Your task to perform on an android device: open app "Pinterest" (install if not already installed) and go to login screen Image 0: 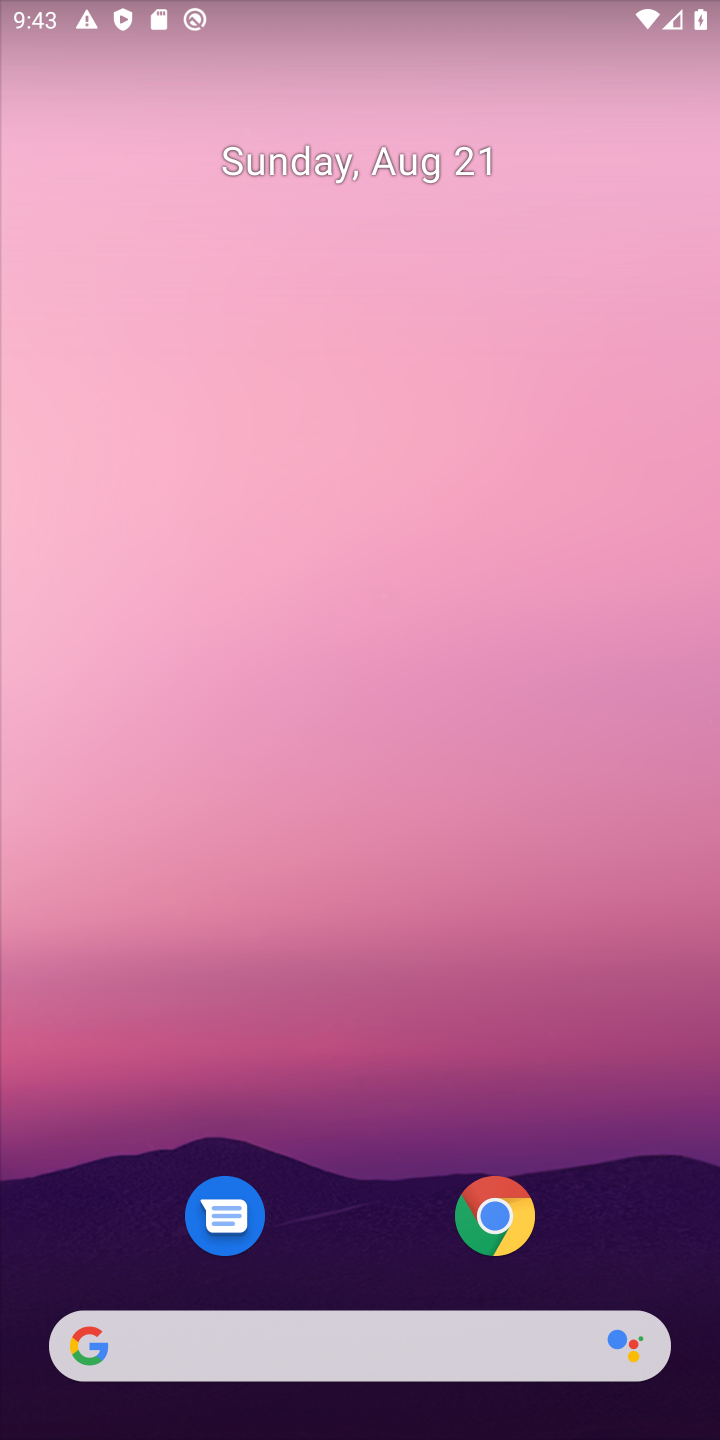
Step 0: drag from (418, 1308) to (457, 142)
Your task to perform on an android device: open app "Pinterest" (install if not already installed) and go to login screen Image 1: 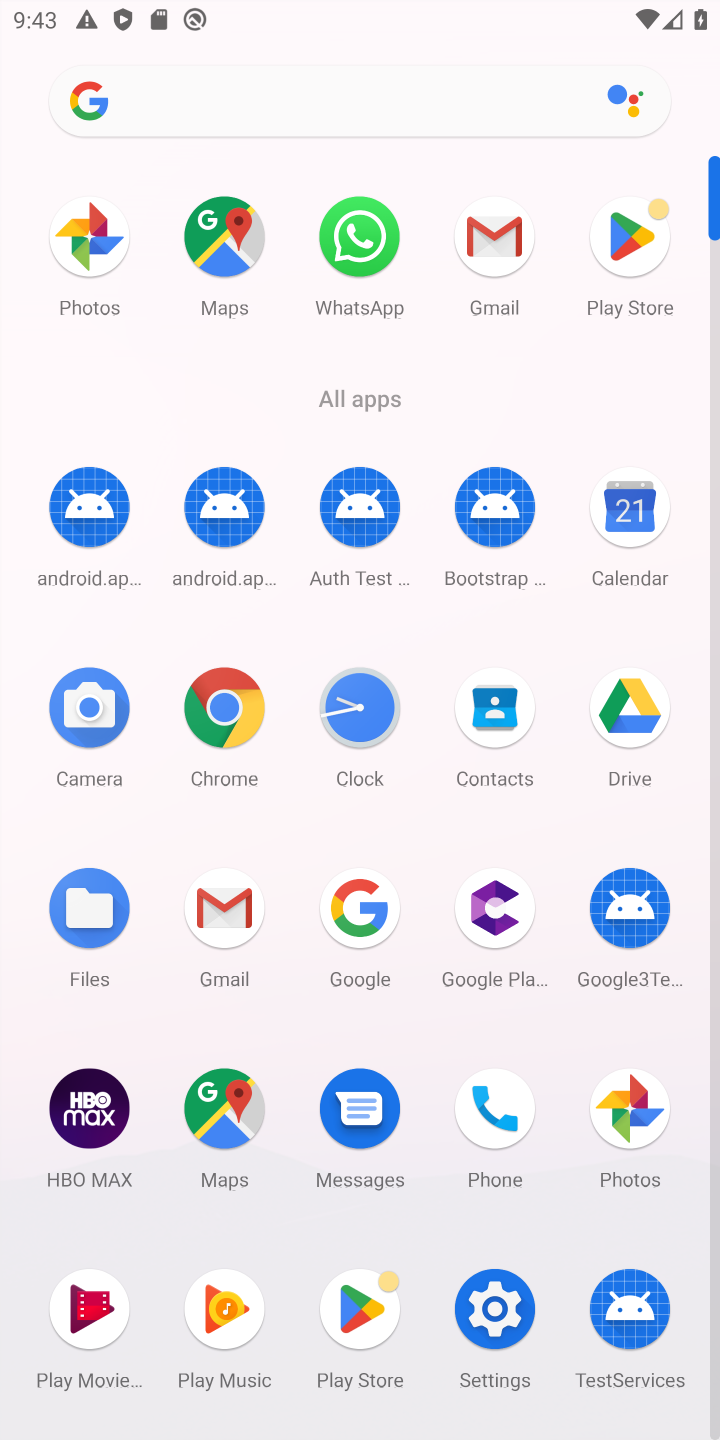
Step 1: click (629, 255)
Your task to perform on an android device: open app "Pinterest" (install if not already installed) and go to login screen Image 2: 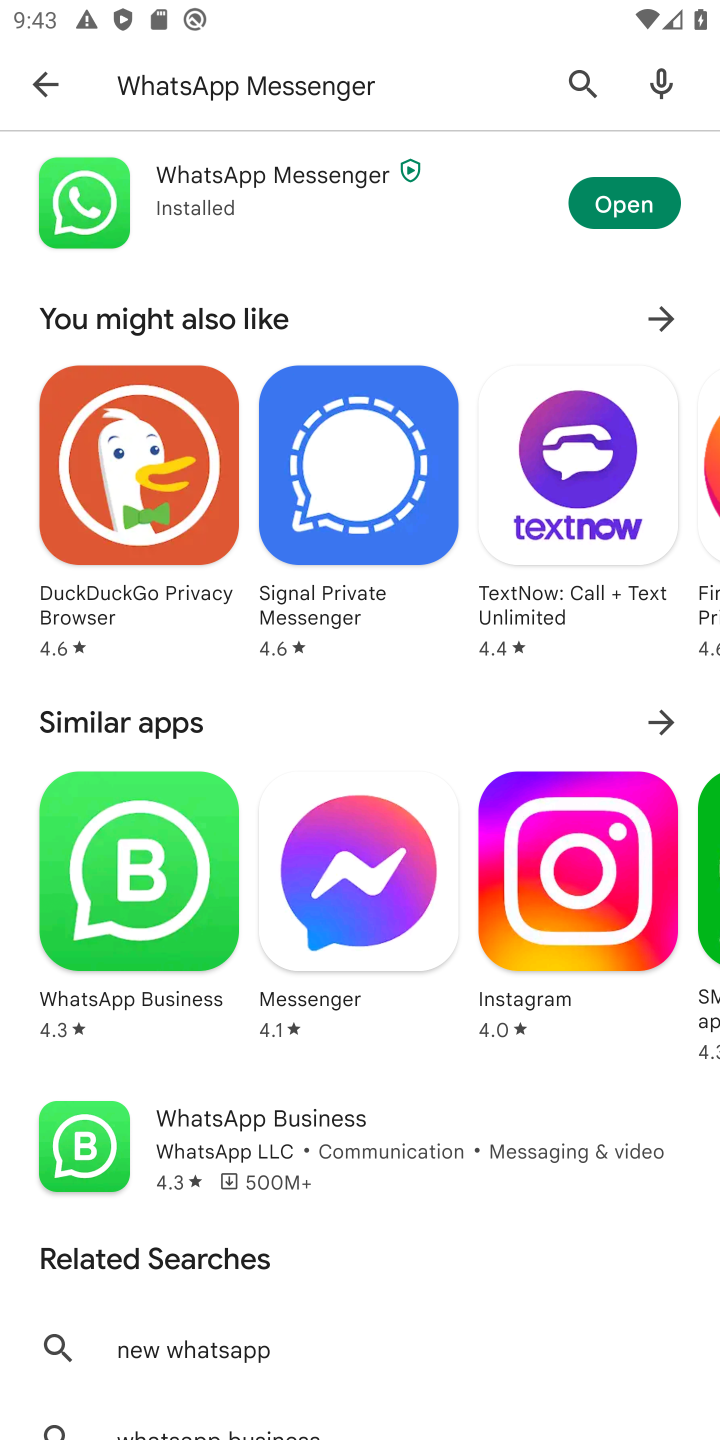
Step 2: press back button
Your task to perform on an android device: open app "Pinterest" (install if not already installed) and go to login screen Image 3: 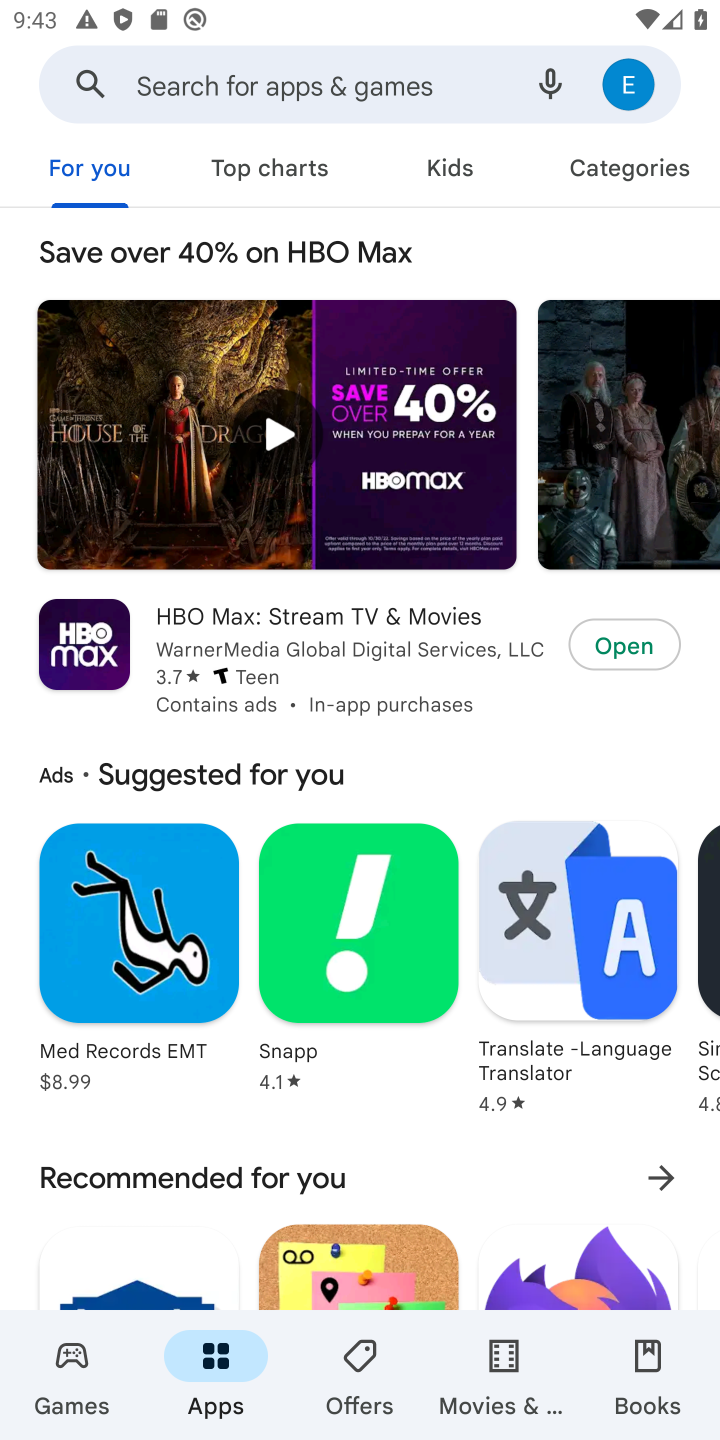
Step 3: click (405, 98)
Your task to perform on an android device: open app "Pinterest" (install if not already installed) and go to login screen Image 4: 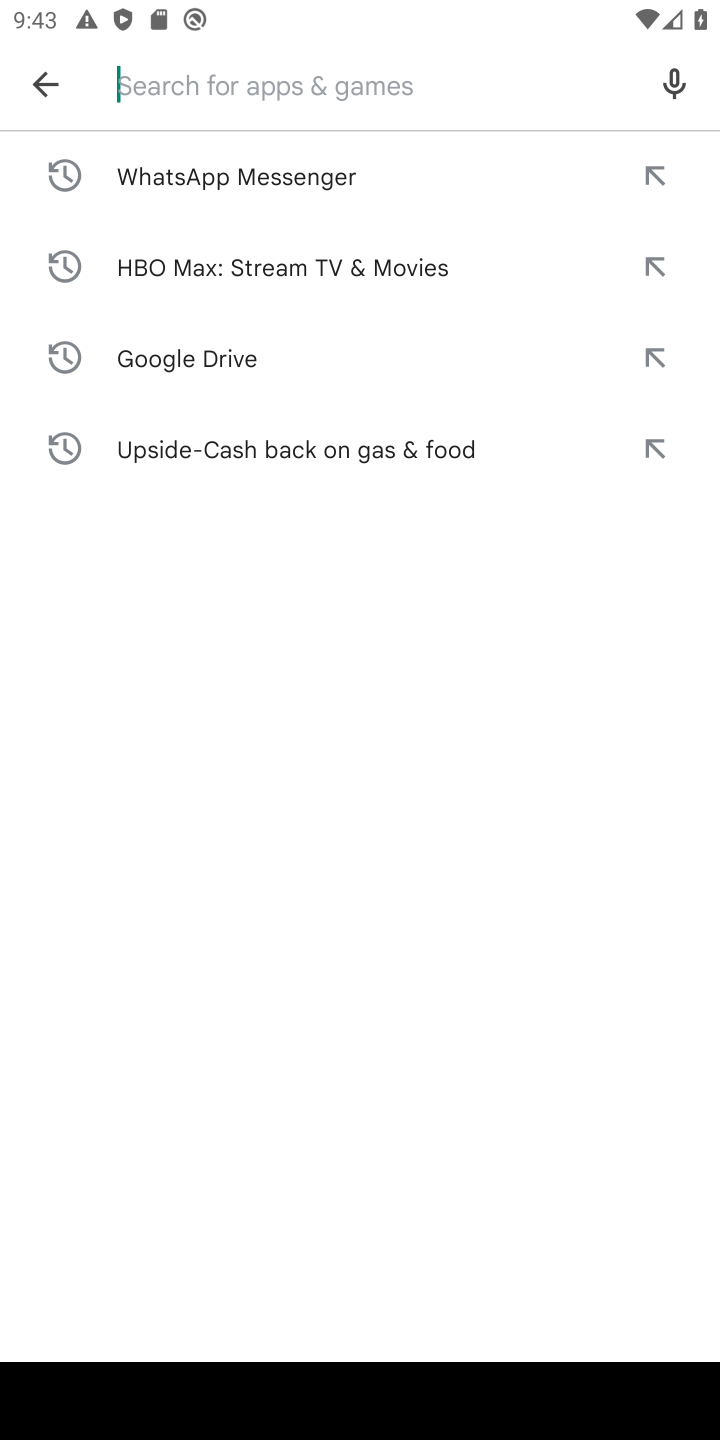
Step 4: type "Pinterest"
Your task to perform on an android device: open app "Pinterest" (install if not already installed) and go to login screen Image 5: 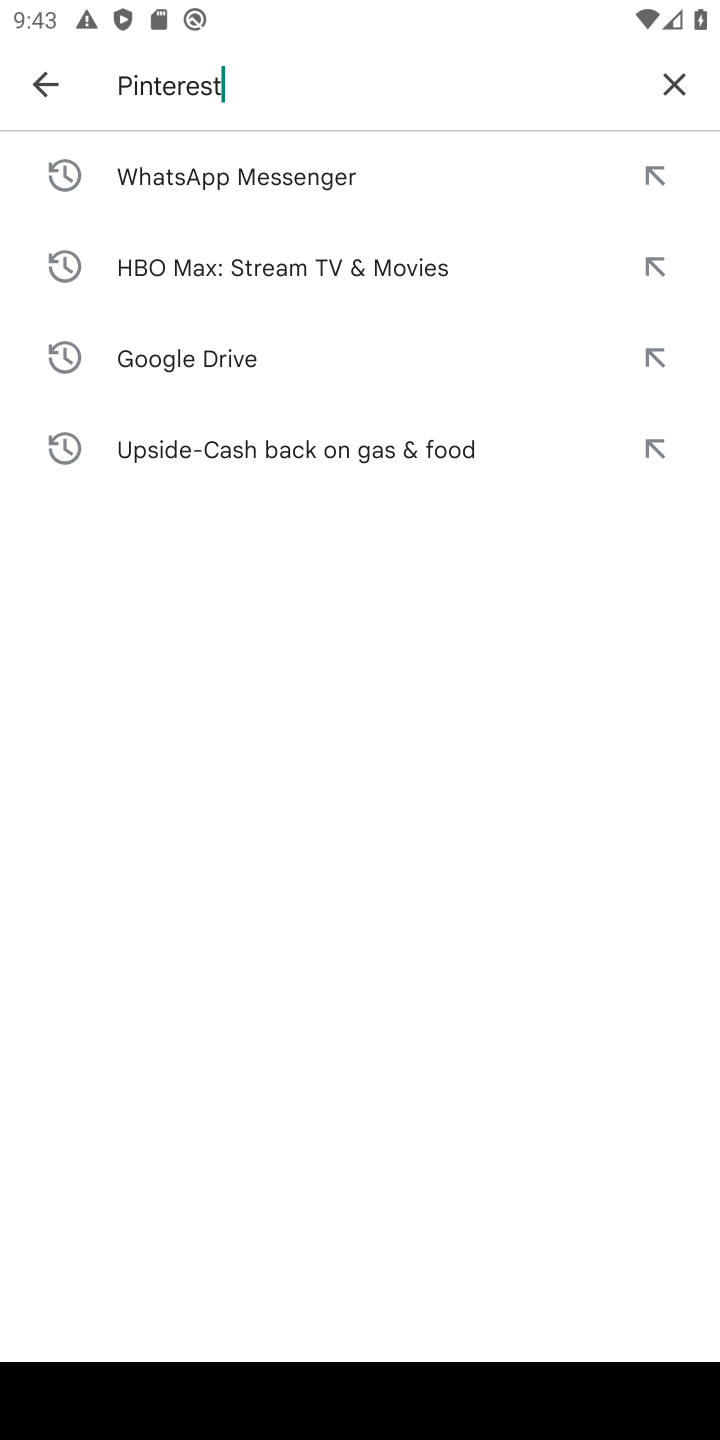
Step 5: press enter
Your task to perform on an android device: open app "Pinterest" (install if not already installed) and go to login screen Image 6: 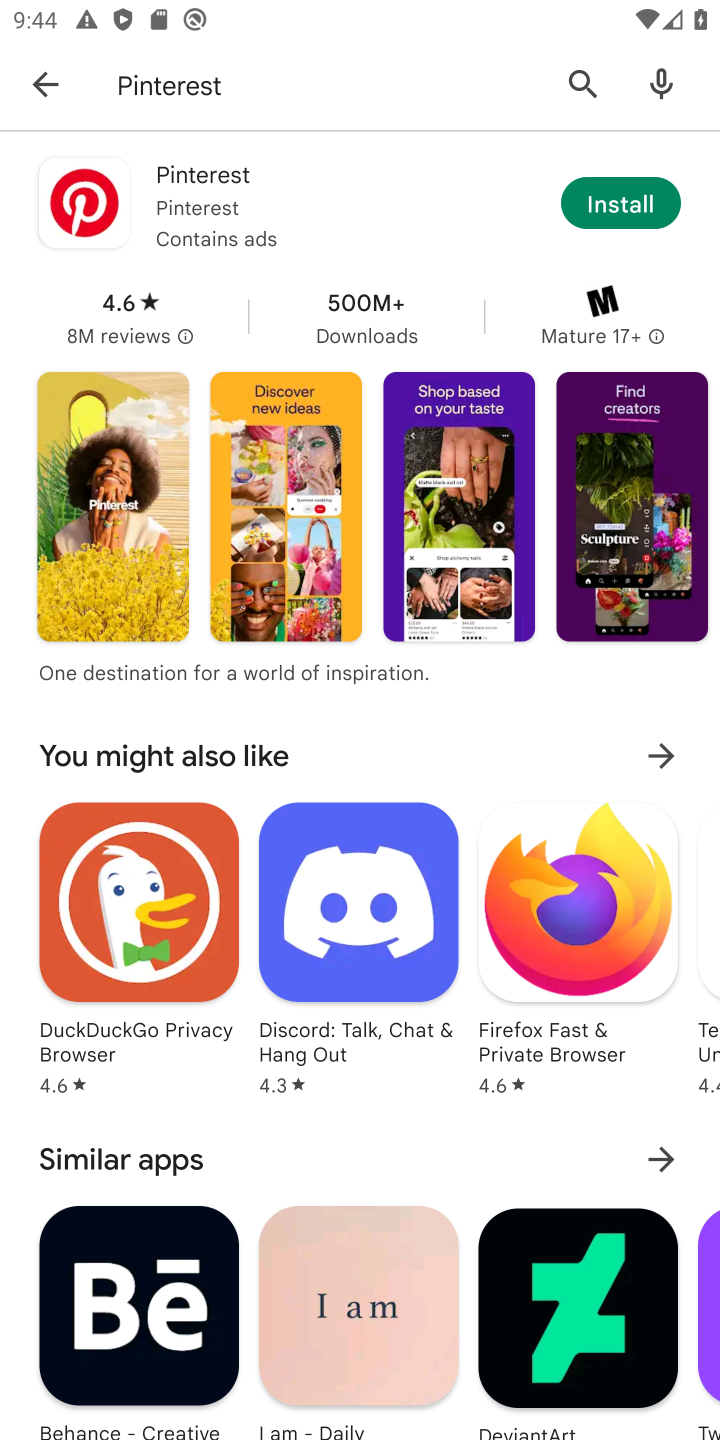
Step 6: click (618, 207)
Your task to perform on an android device: open app "Pinterest" (install if not already installed) and go to login screen Image 7: 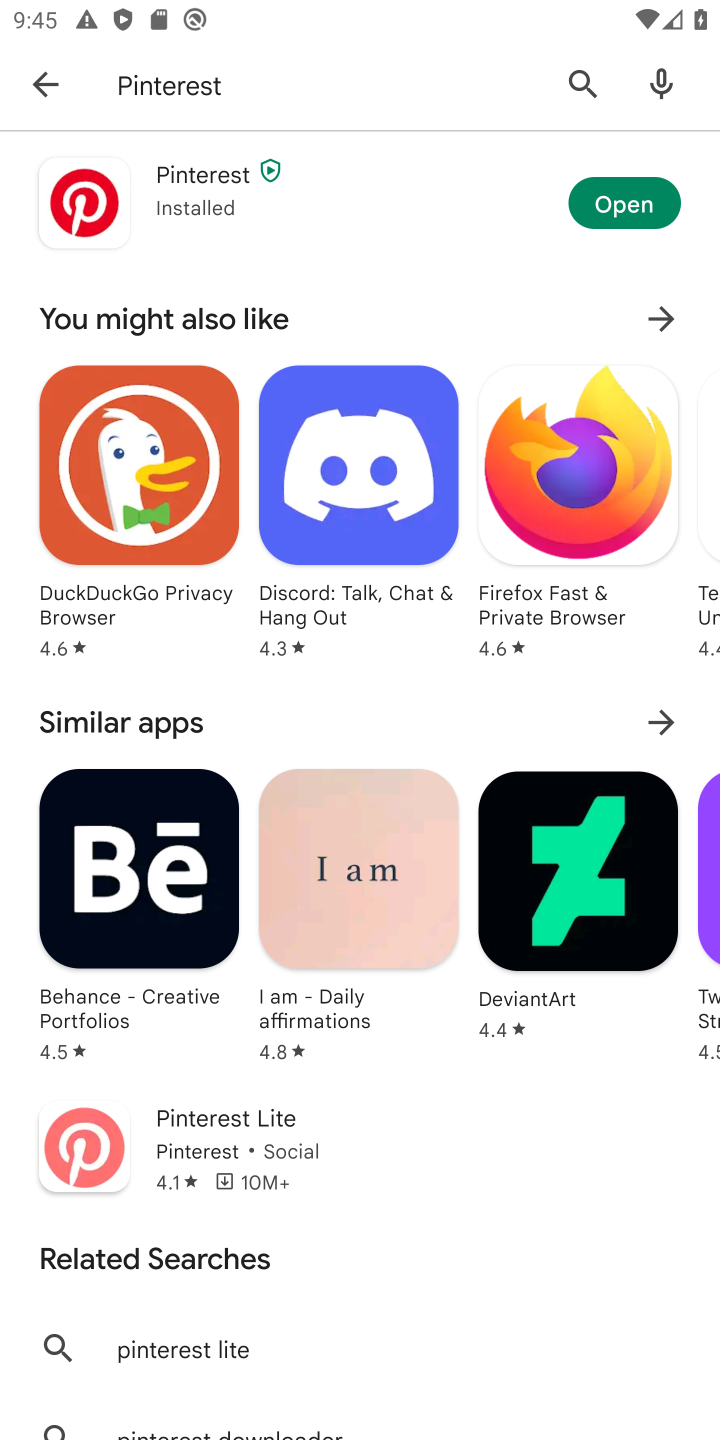
Step 7: click (638, 212)
Your task to perform on an android device: open app "Pinterest" (install if not already installed) and go to login screen Image 8: 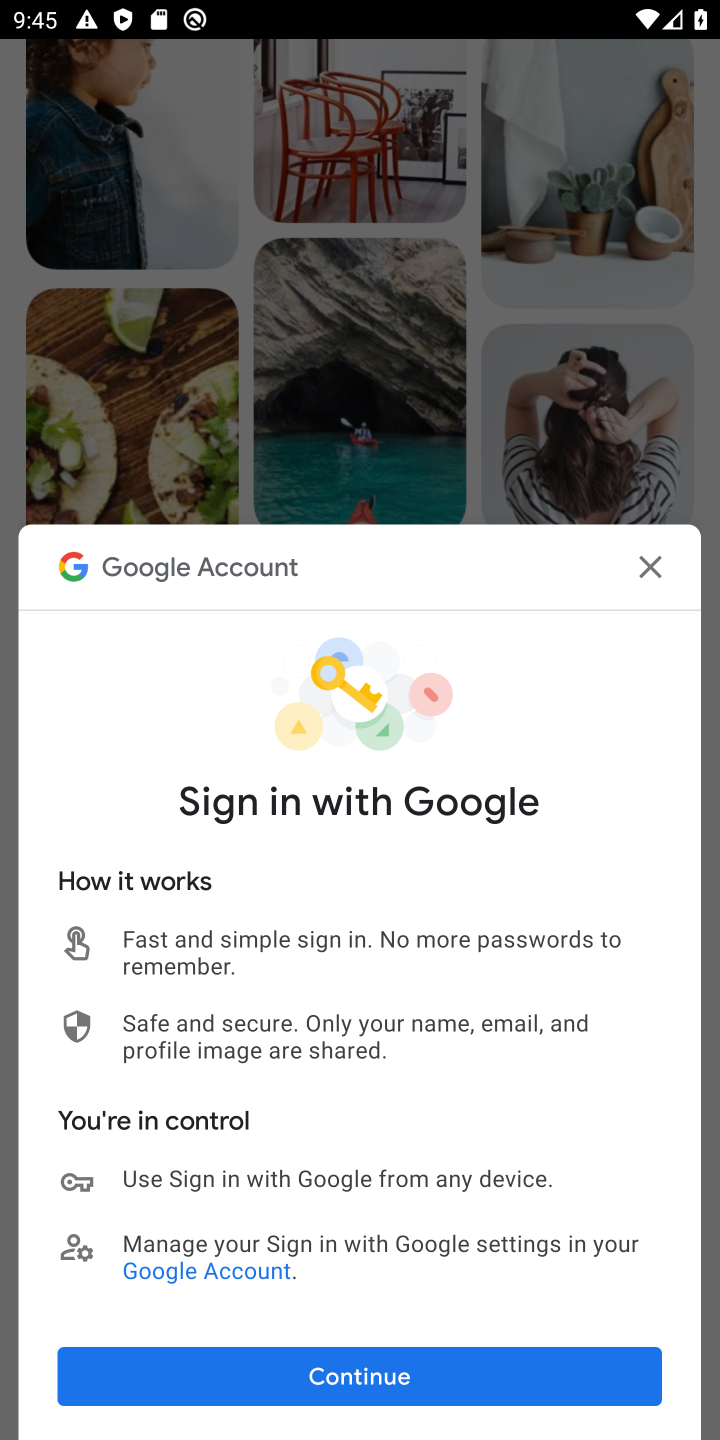
Step 8: click (381, 1387)
Your task to perform on an android device: open app "Pinterest" (install if not already installed) and go to login screen Image 9: 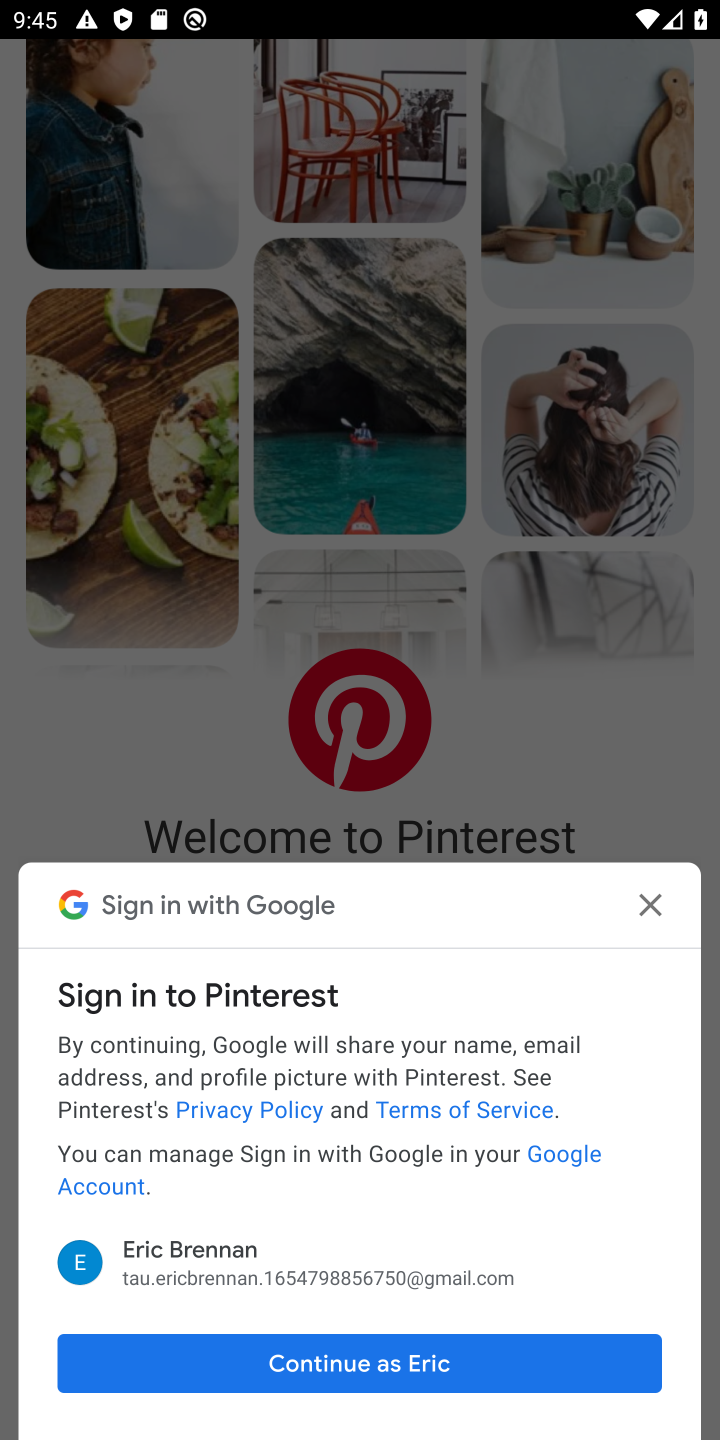
Step 9: click (381, 1392)
Your task to perform on an android device: open app "Pinterest" (install if not already installed) and go to login screen Image 10: 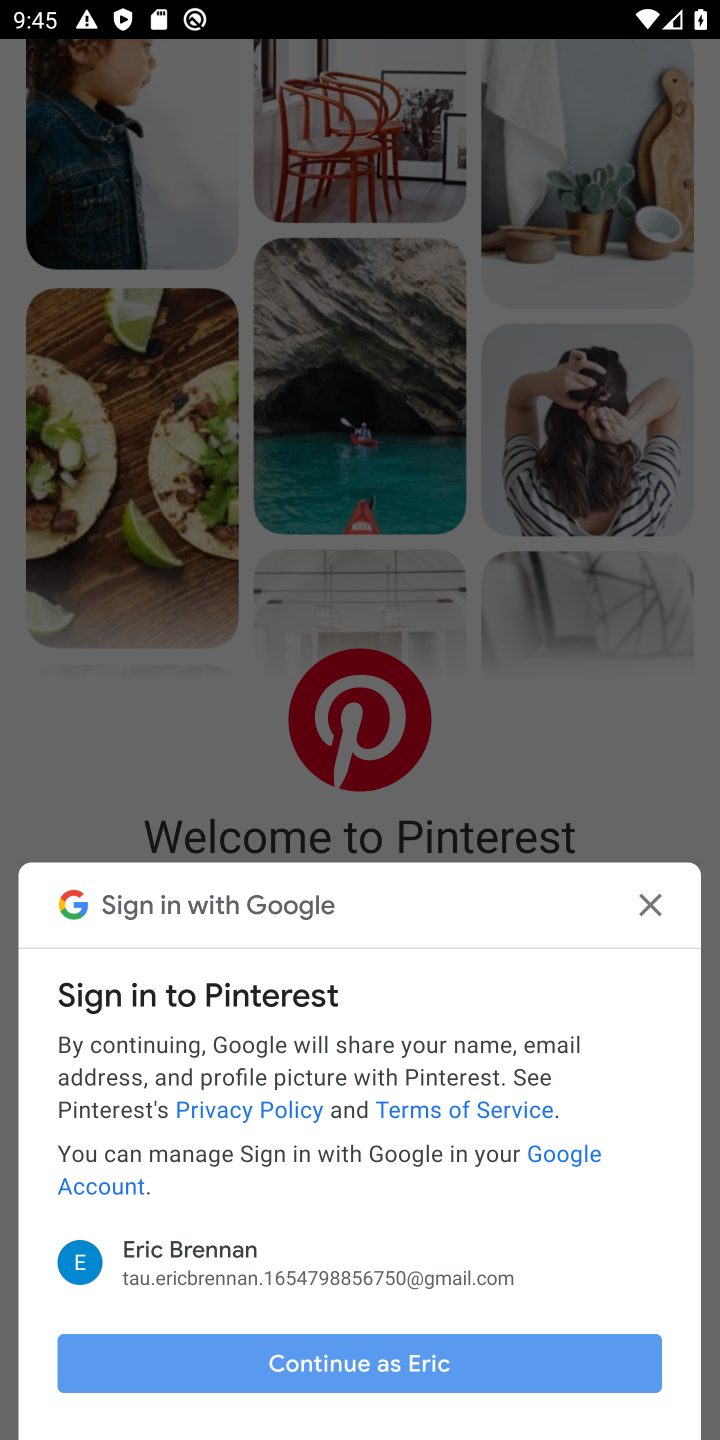
Step 10: click (364, 1375)
Your task to perform on an android device: open app "Pinterest" (install if not already installed) and go to login screen Image 11: 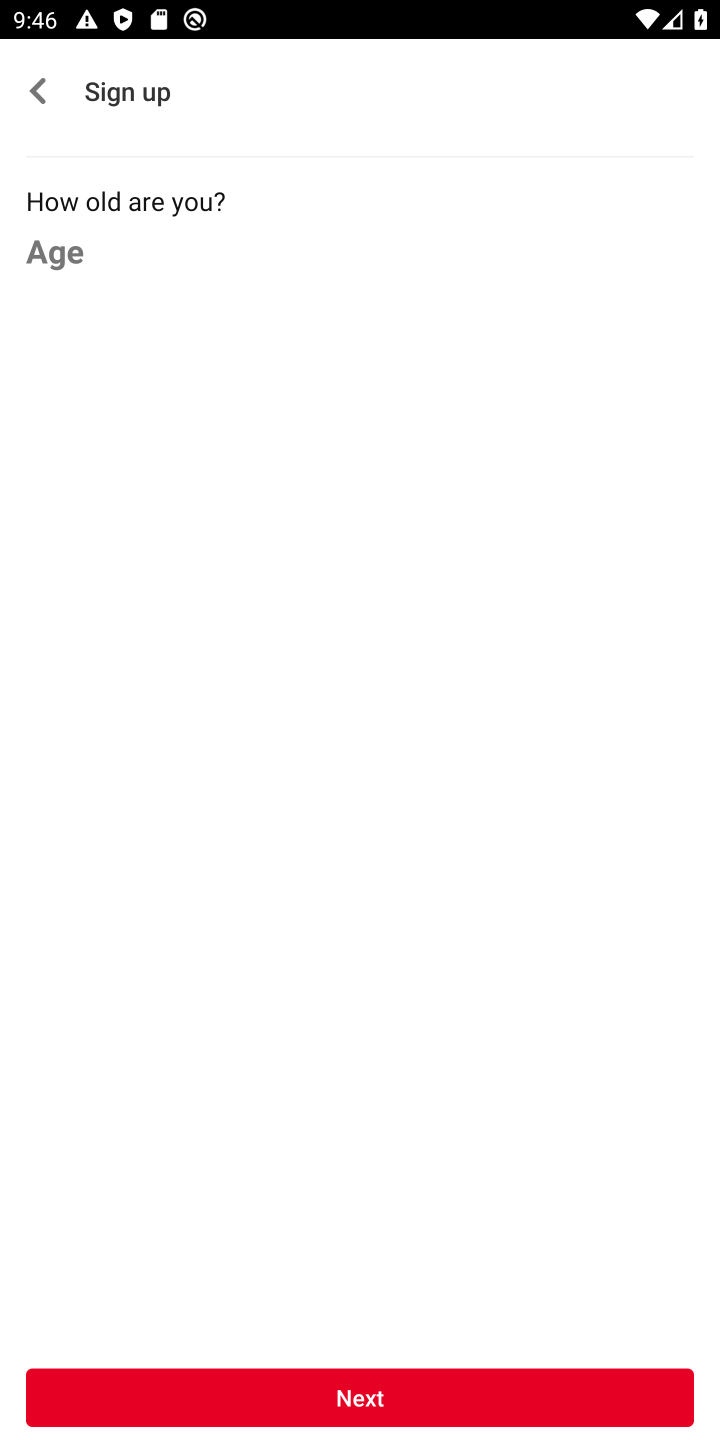
Step 11: click (400, 1402)
Your task to perform on an android device: open app "Pinterest" (install if not already installed) and go to login screen Image 12: 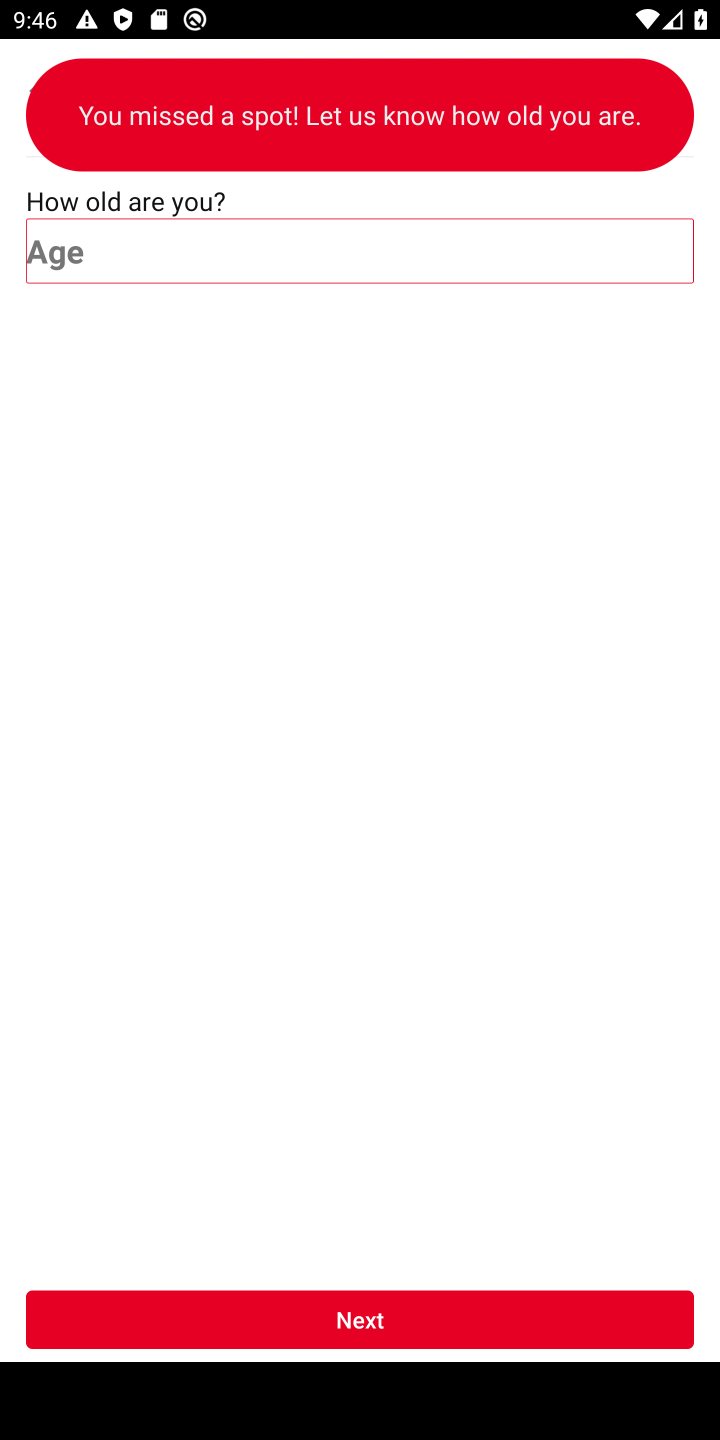
Step 12: task complete